Your task to perform on an android device: Check my gmail Image 0: 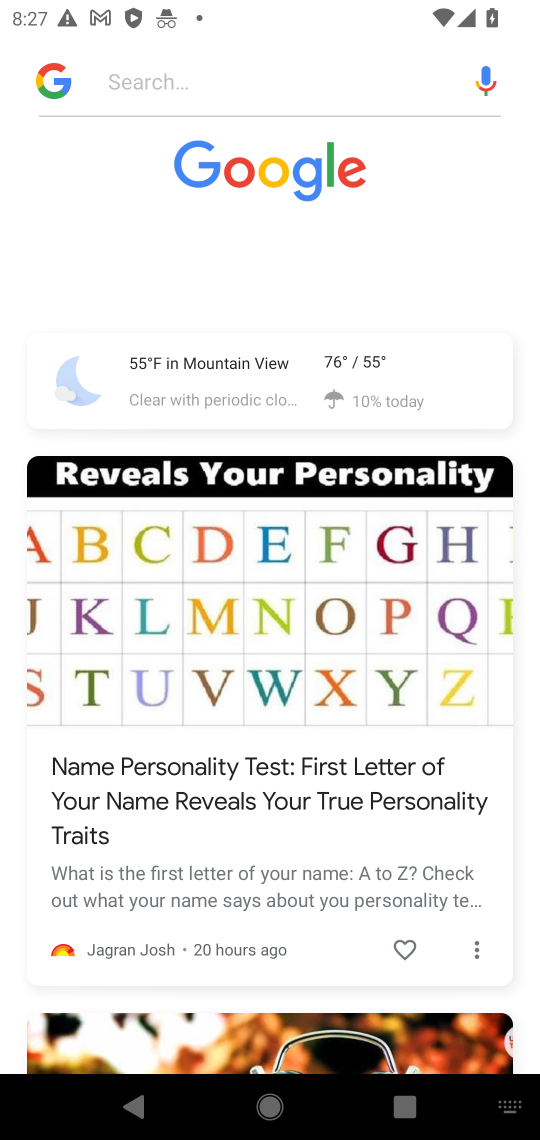
Step 0: press home button
Your task to perform on an android device: Check my gmail Image 1: 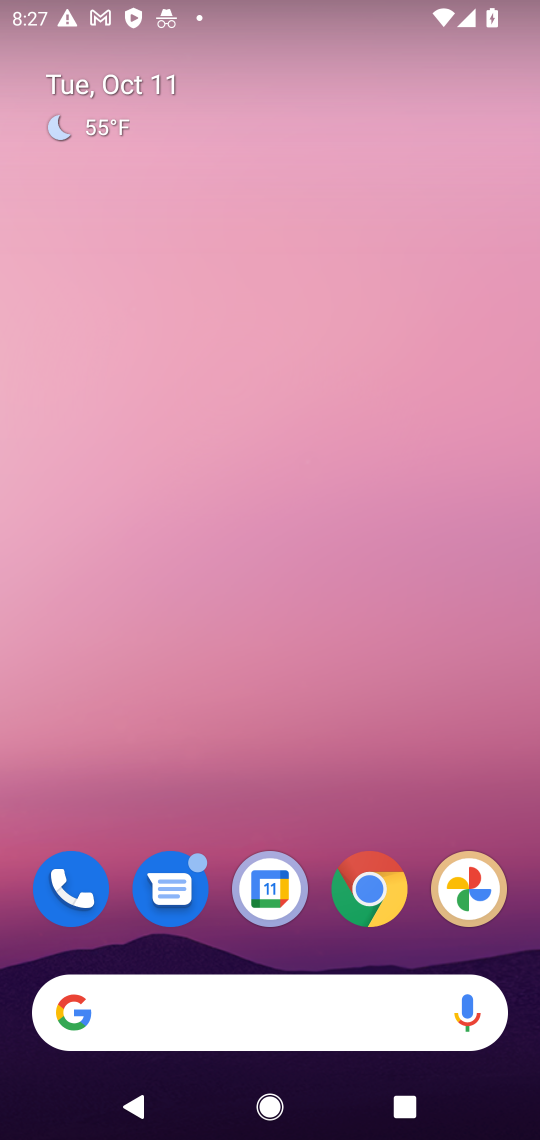
Step 1: drag from (329, 629) to (428, 38)
Your task to perform on an android device: Check my gmail Image 2: 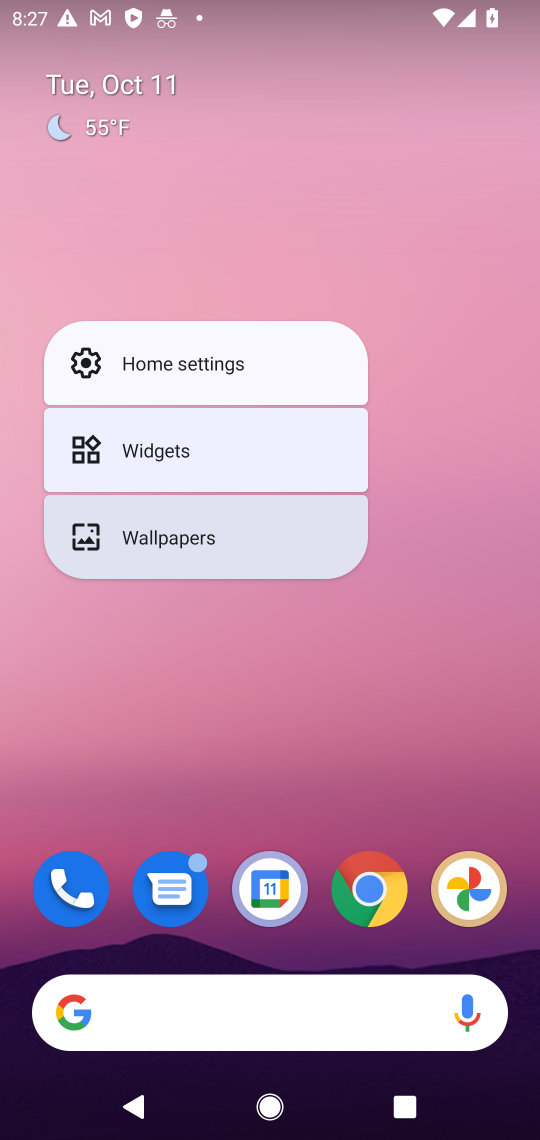
Step 2: drag from (301, 723) to (282, 794)
Your task to perform on an android device: Check my gmail Image 3: 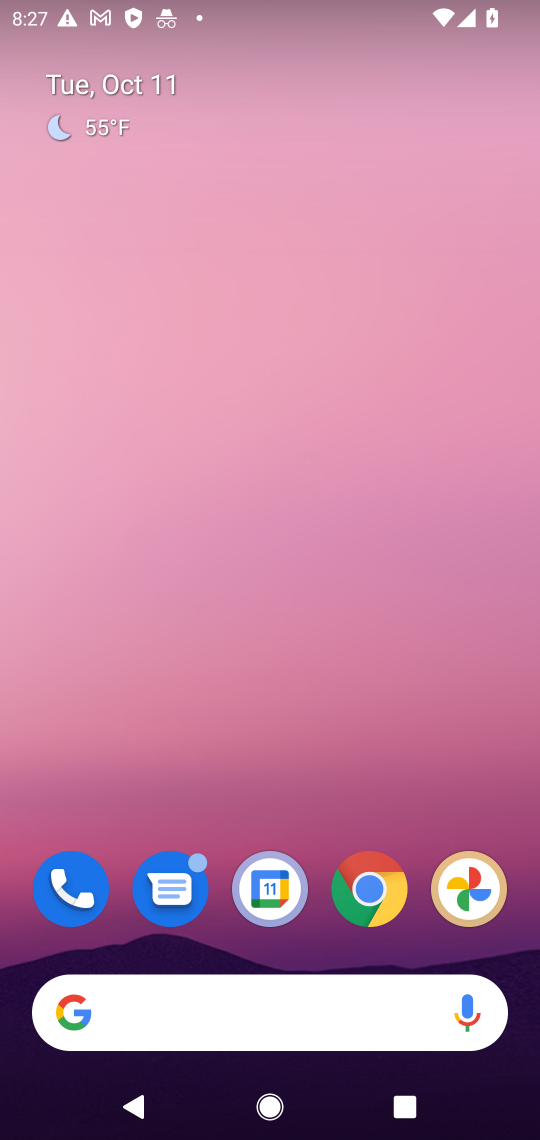
Step 3: click (211, 763)
Your task to perform on an android device: Check my gmail Image 4: 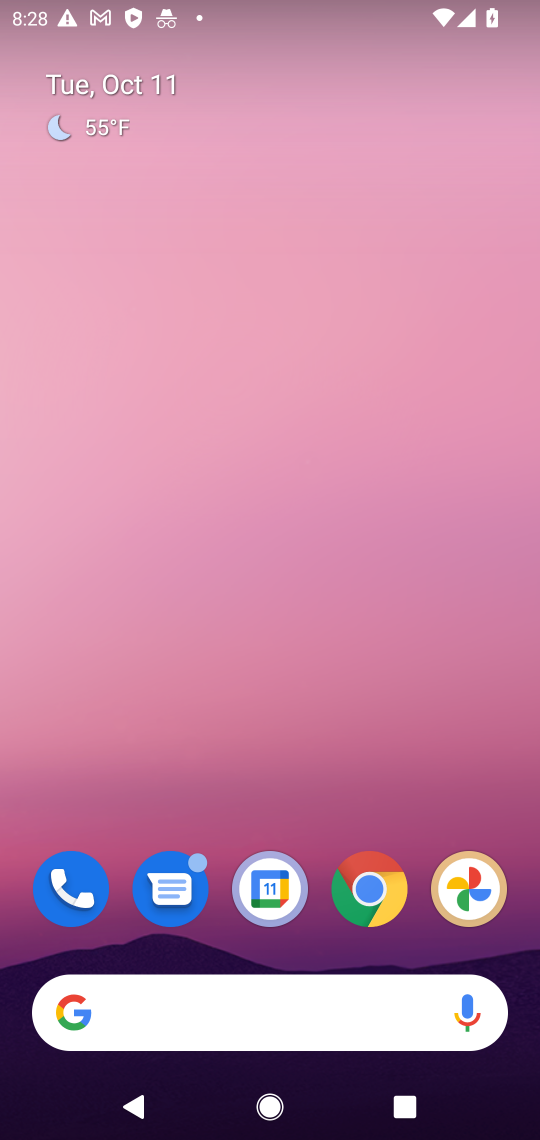
Step 4: drag from (247, 606) to (67, 643)
Your task to perform on an android device: Check my gmail Image 5: 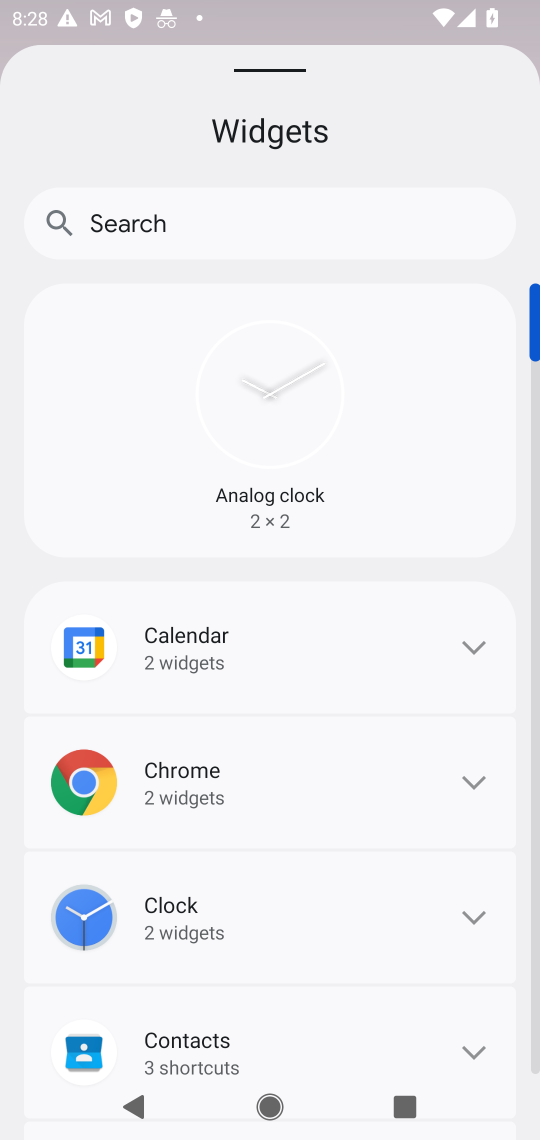
Step 5: press home button
Your task to perform on an android device: Check my gmail Image 6: 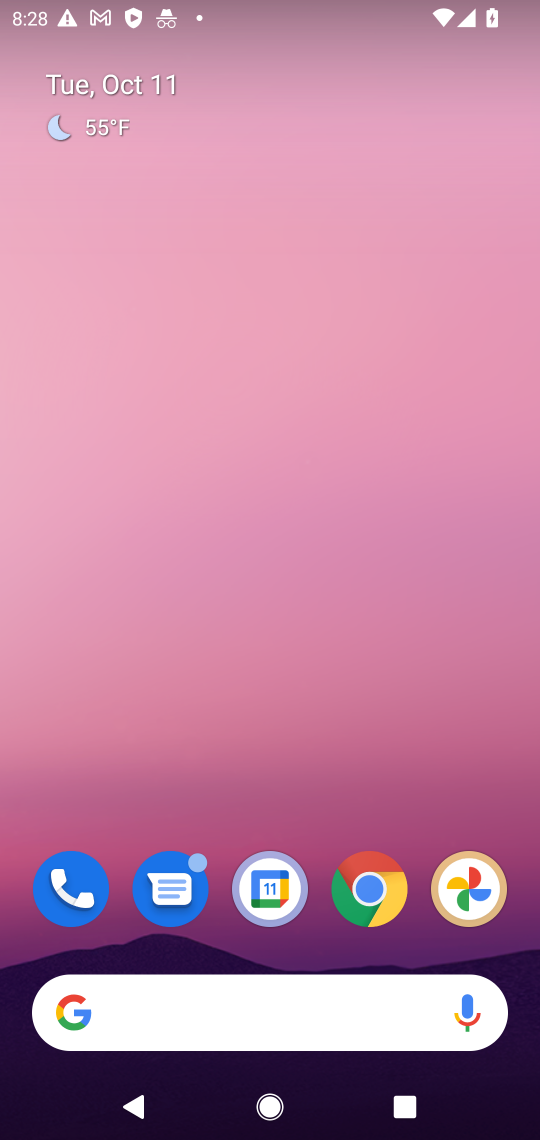
Step 6: drag from (214, 548) to (274, 105)
Your task to perform on an android device: Check my gmail Image 7: 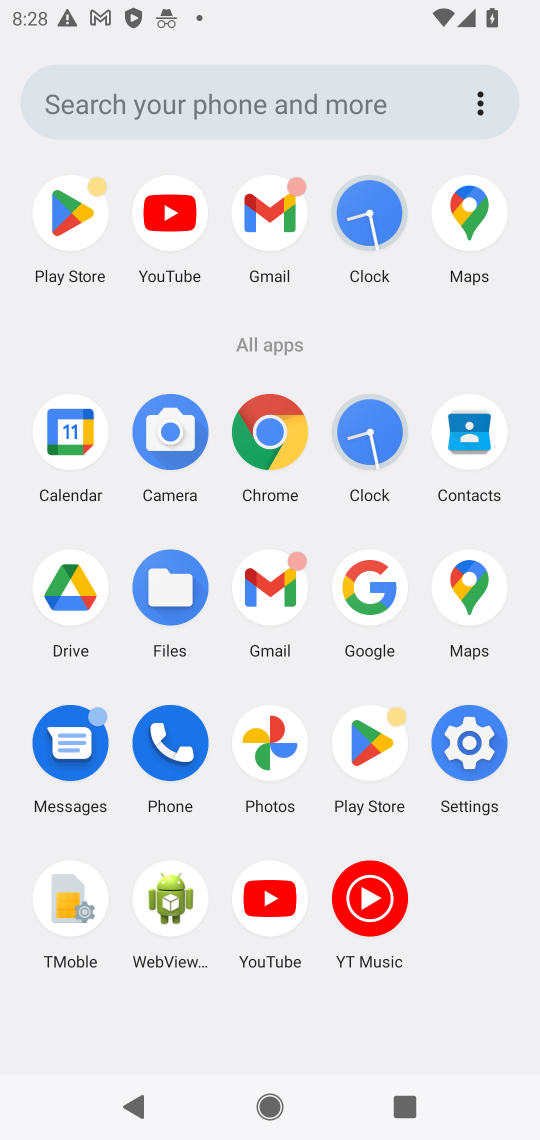
Step 7: click (278, 216)
Your task to perform on an android device: Check my gmail Image 8: 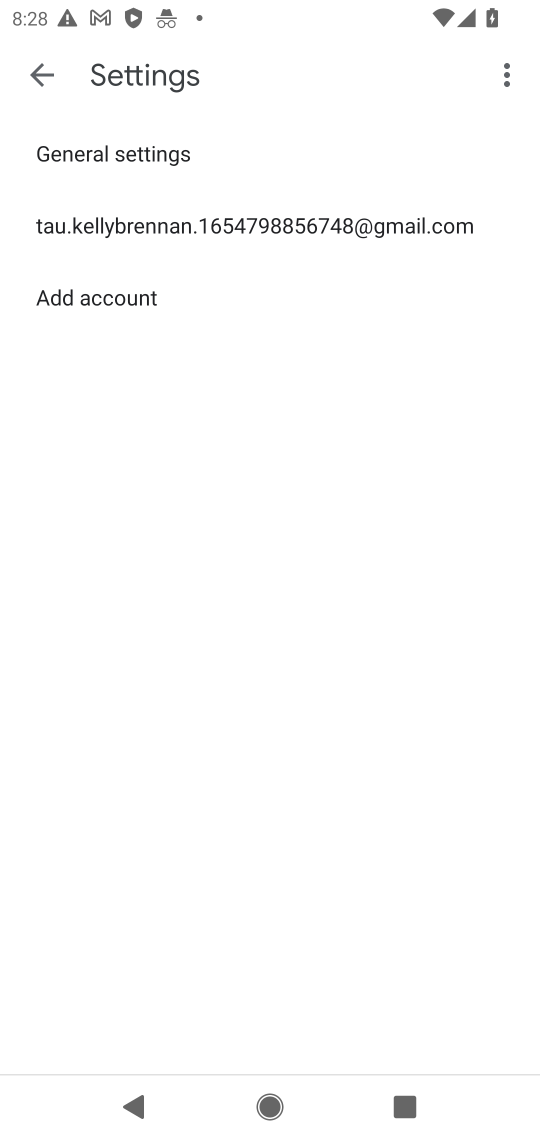
Step 8: click (32, 73)
Your task to perform on an android device: Check my gmail Image 9: 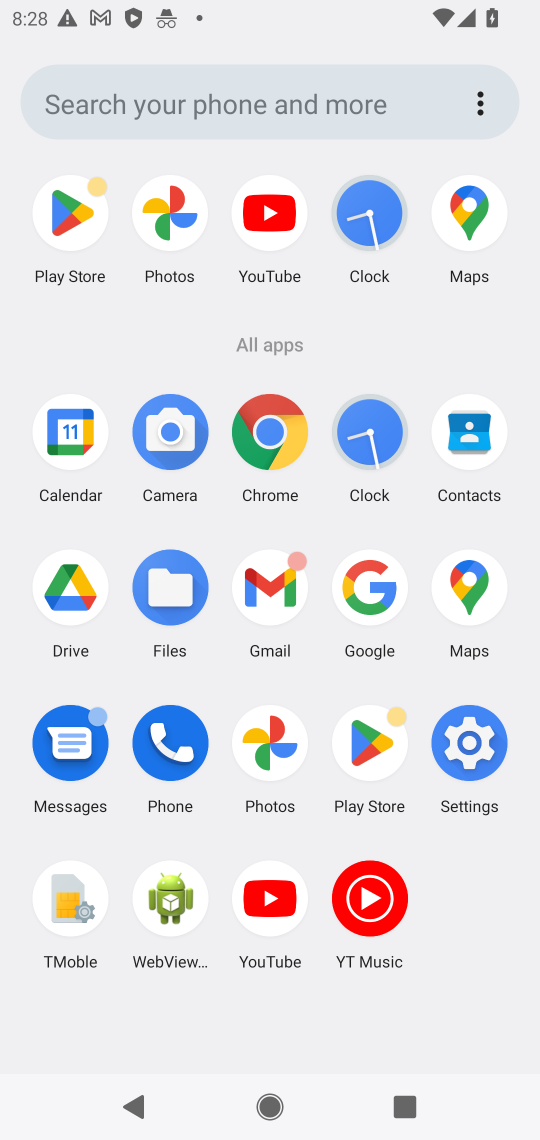
Step 9: click (247, 580)
Your task to perform on an android device: Check my gmail Image 10: 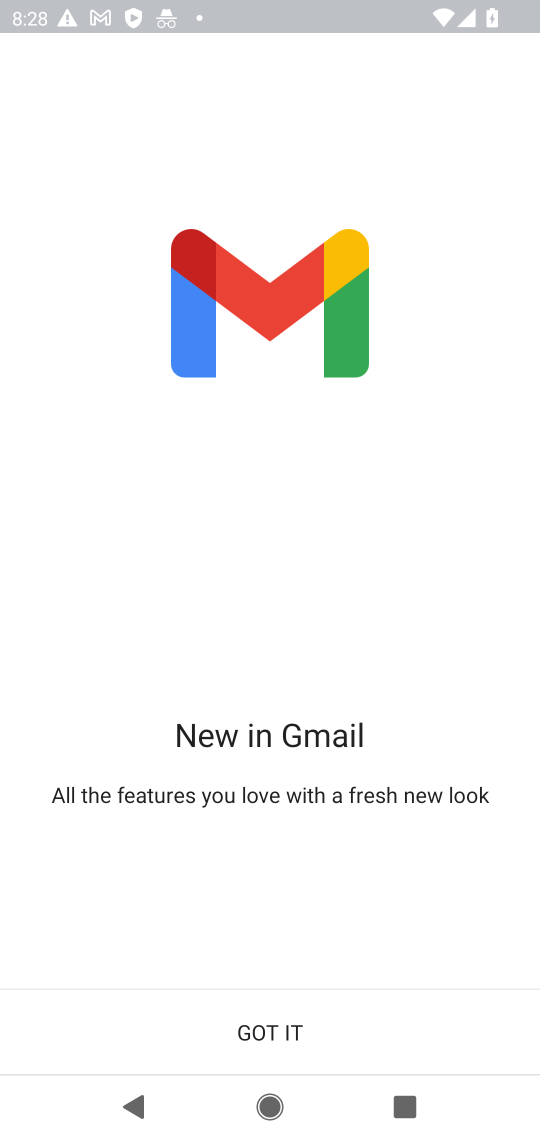
Step 10: click (293, 1023)
Your task to perform on an android device: Check my gmail Image 11: 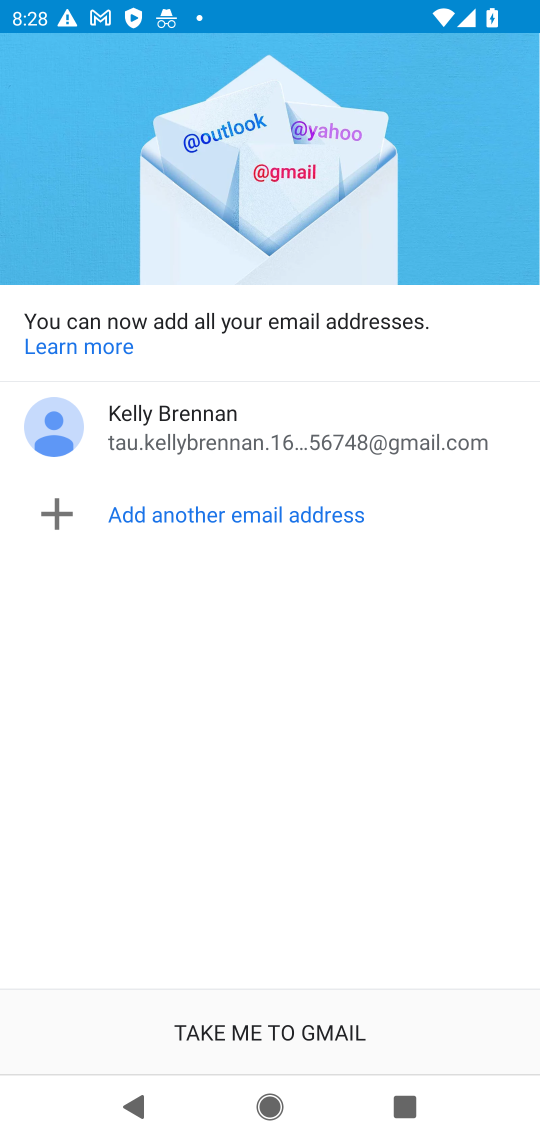
Step 11: click (251, 1027)
Your task to perform on an android device: Check my gmail Image 12: 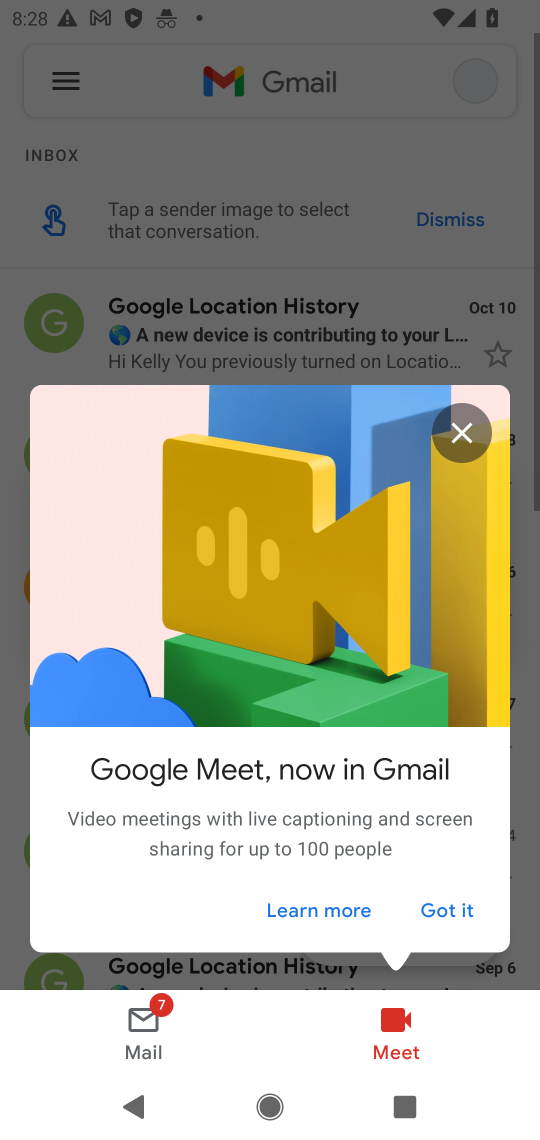
Step 12: click (463, 613)
Your task to perform on an android device: Check my gmail Image 13: 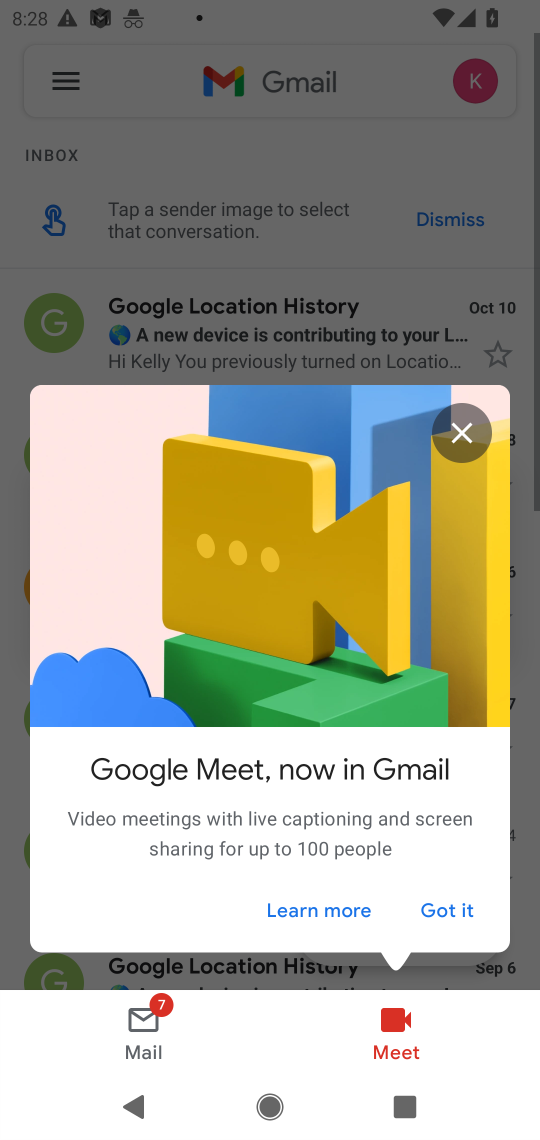
Step 13: click (452, 428)
Your task to perform on an android device: Check my gmail Image 14: 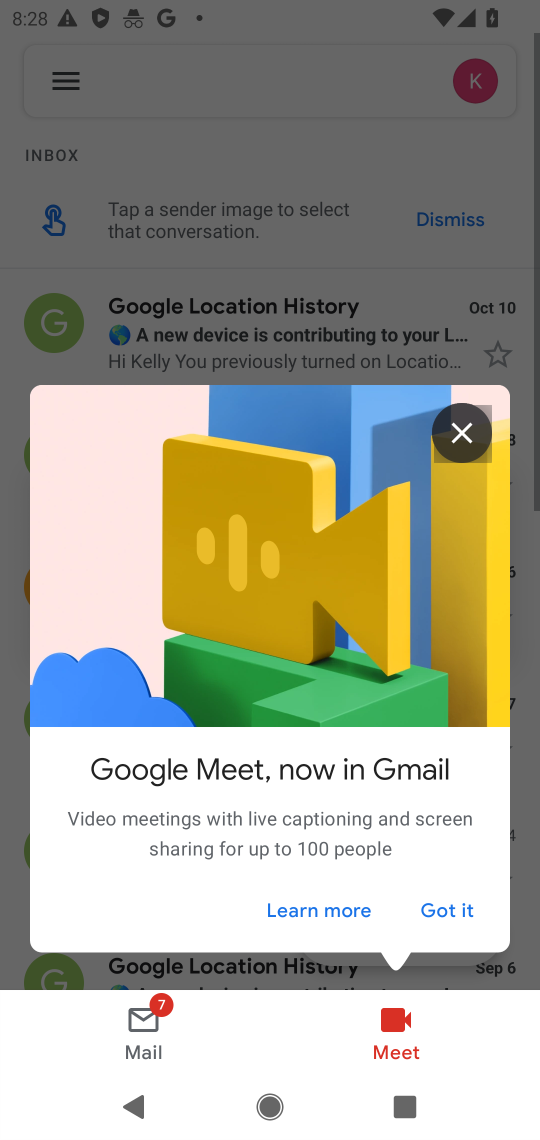
Step 14: task complete